Your task to perform on an android device: Open Wikipedia Image 0: 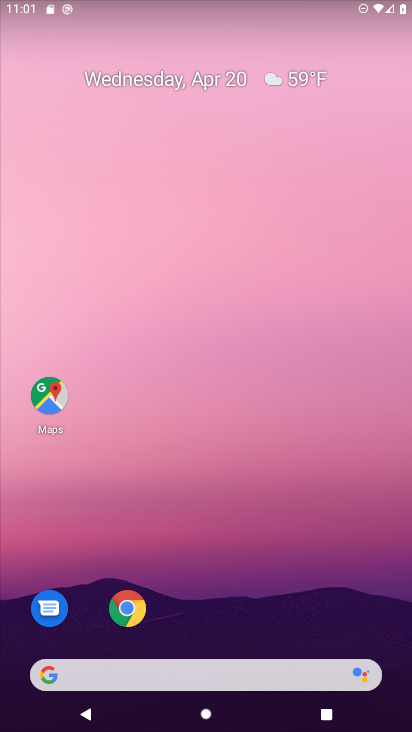
Step 0: drag from (280, 564) to (312, 156)
Your task to perform on an android device: Open Wikipedia Image 1: 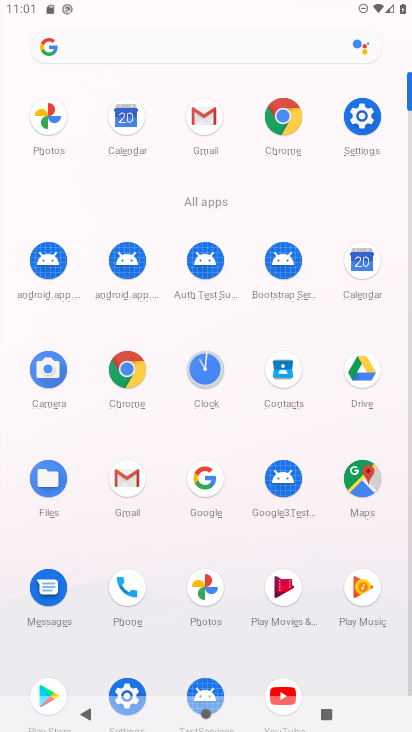
Step 1: click (282, 126)
Your task to perform on an android device: Open Wikipedia Image 2: 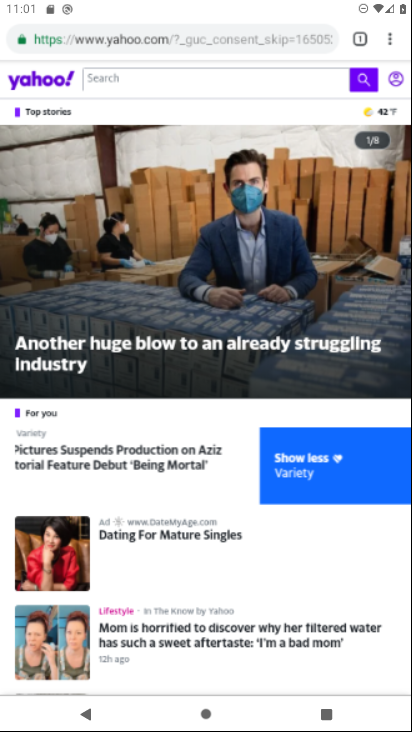
Step 2: click (157, 36)
Your task to perform on an android device: Open Wikipedia Image 3: 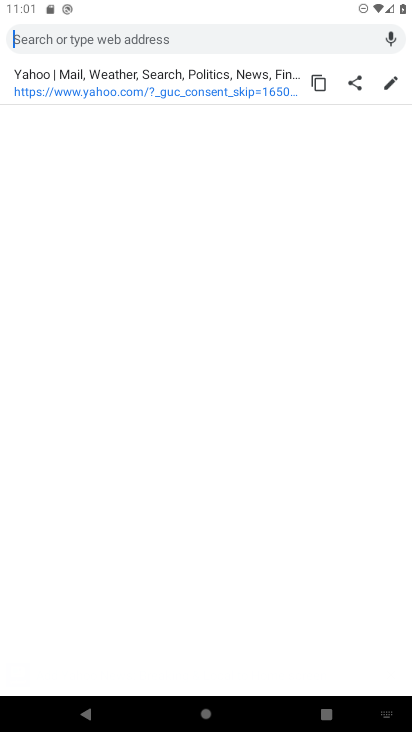
Step 3: type "wikipedia"
Your task to perform on an android device: Open Wikipedia Image 4: 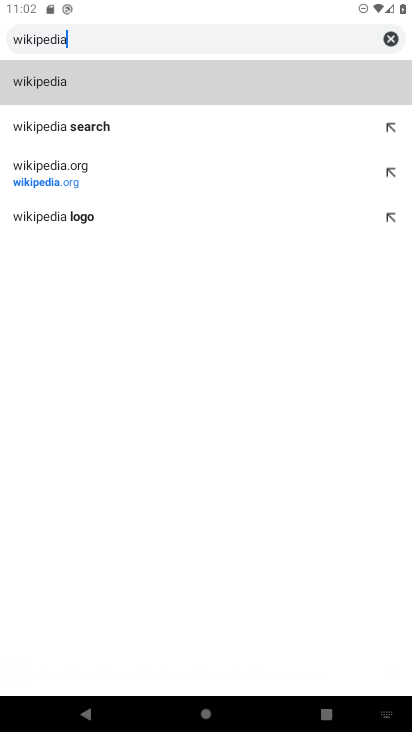
Step 4: click (63, 81)
Your task to perform on an android device: Open Wikipedia Image 5: 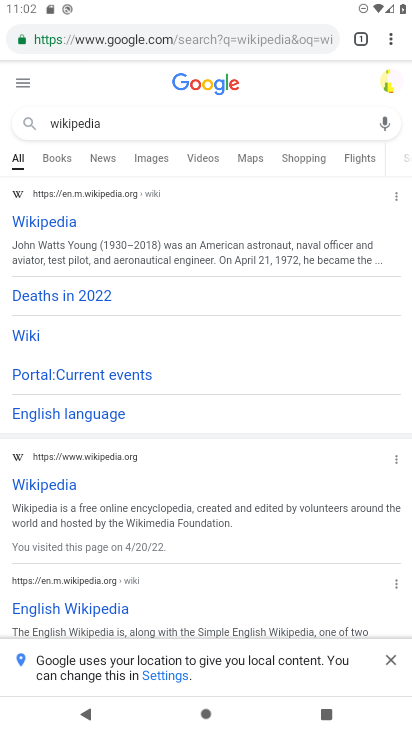
Step 5: click (51, 228)
Your task to perform on an android device: Open Wikipedia Image 6: 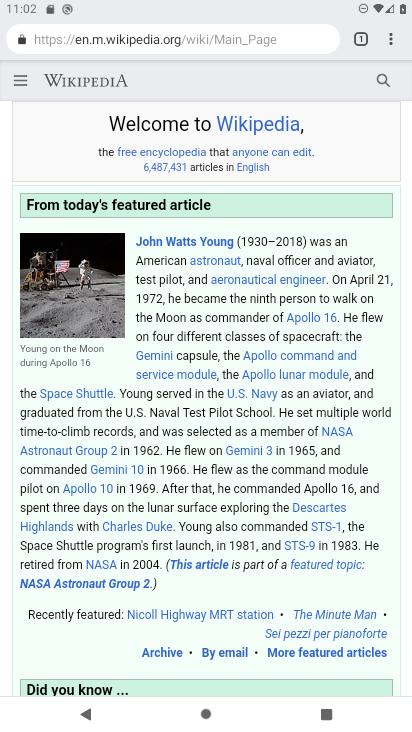
Step 6: task complete